Your task to perform on an android device: toggle airplane mode Image 0: 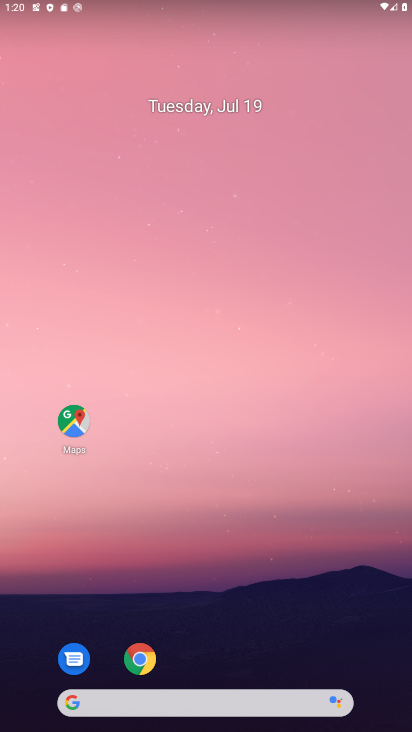
Step 0: press home button
Your task to perform on an android device: toggle airplane mode Image 1: 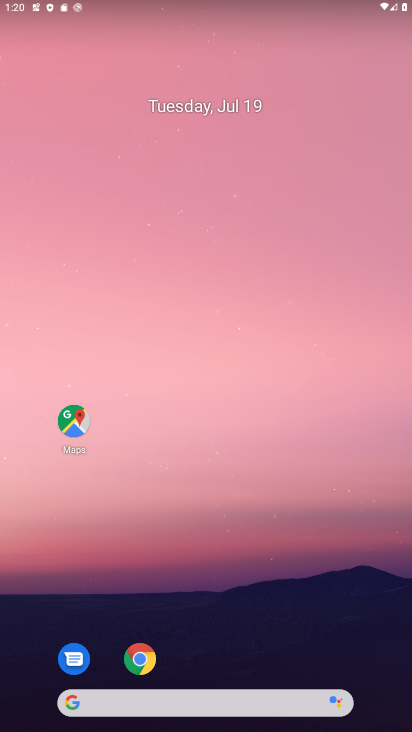
Step 1: drag from (321, 7) to (287, 493)
Your task to perform on an android device: toggle airplane mode Image 2: 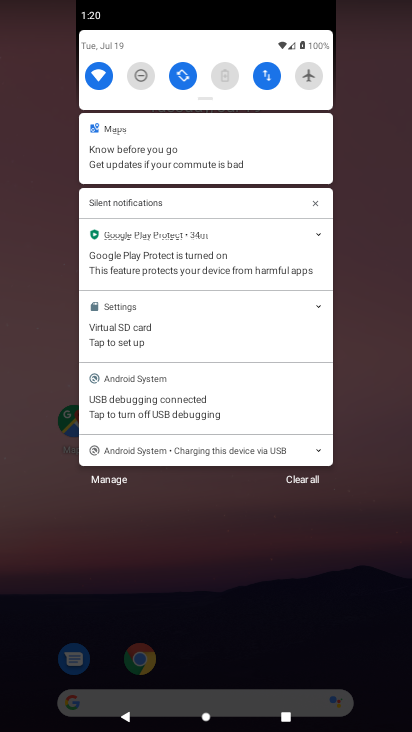
Step 2: drag from (199, 96) to (172, 455)
Your task to perform on an android device: toggle airplane mode Image 3: 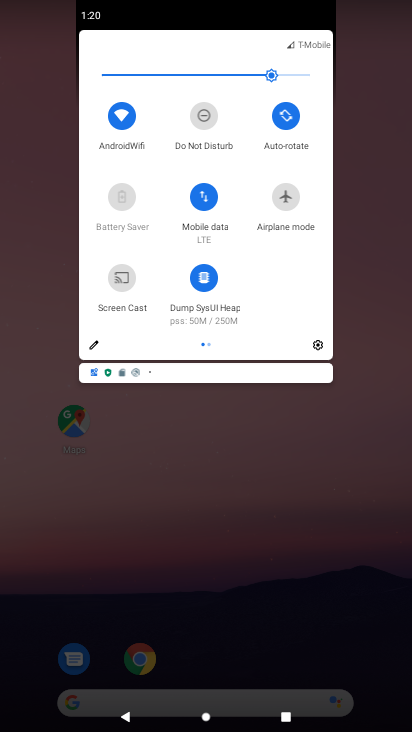
Step 3: click (290, 211)
Your task to perform on an android device: toggle airplane mode Image 4: 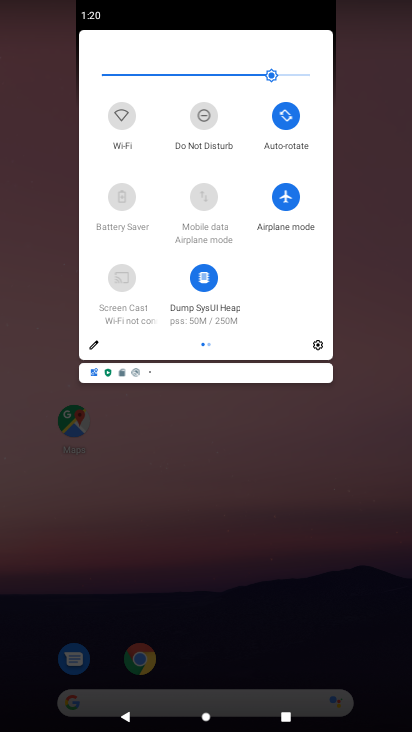
Step 4: task complete